Your task to perform on an android device: clear all cookies in the chrome app Image 0: 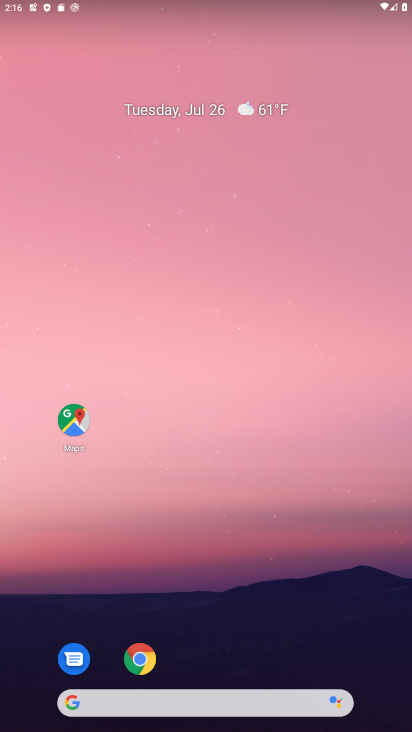
Step 0: click (140, 658)
Your task to perform on an android device: clear all cookies in the chrome app Image 1: 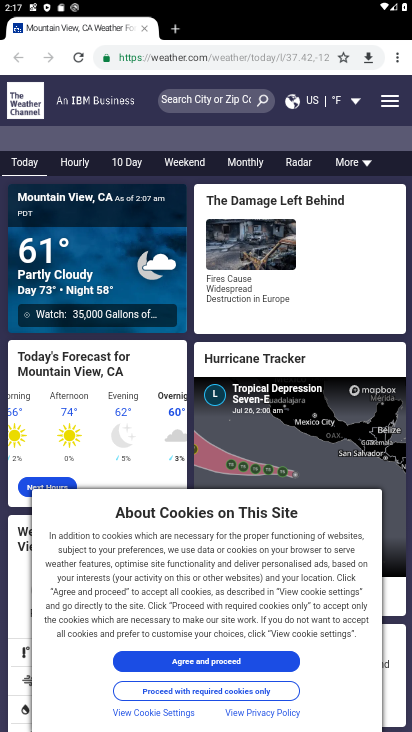
Step 1: click (394, 59)
Your task to perform on an android device: clear all cookies in the chrome app Image 2: 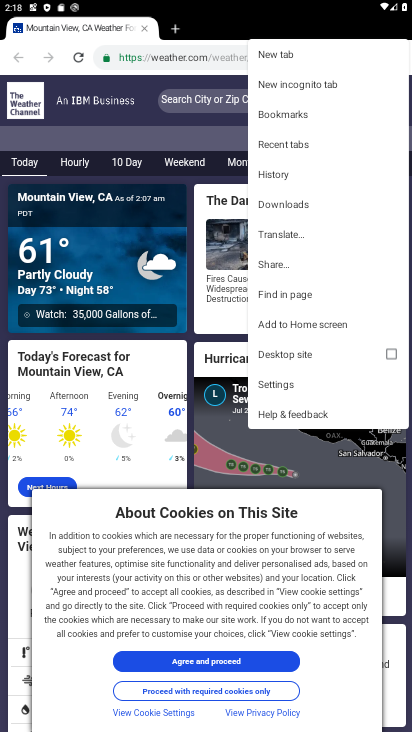
Step 2: click (287, 169)
Your task to perform on an android device: clear all cookies in the chrome app Image 3: 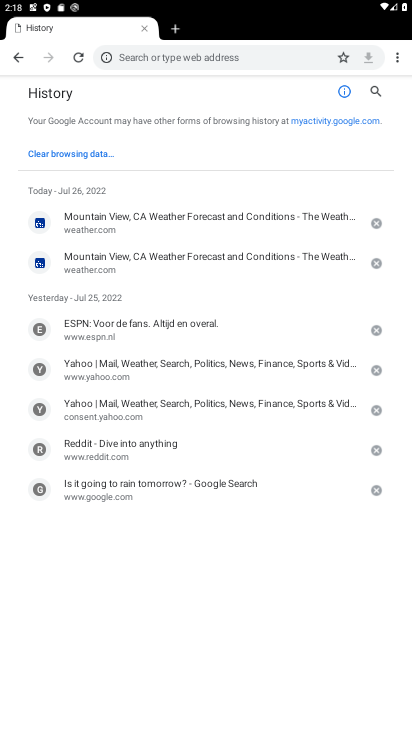
Step 3: click (82, 147)
Your task to perform on an android device: clear all cookies in the chrome app Image 4: 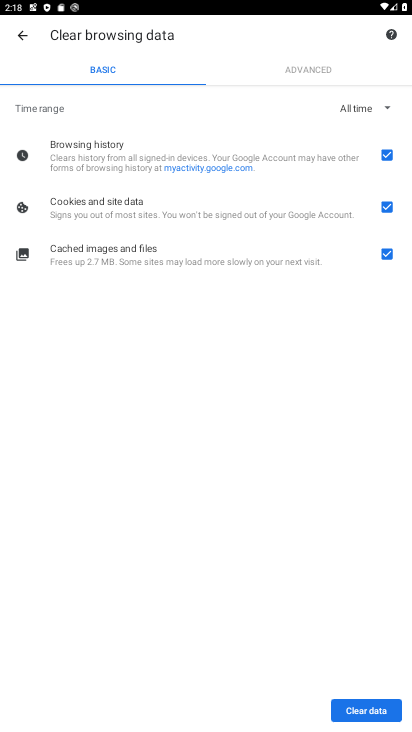
Step 4: click (387, 252)
Your task to perform on an android device: clear all cookies in the chrome app Image 5: 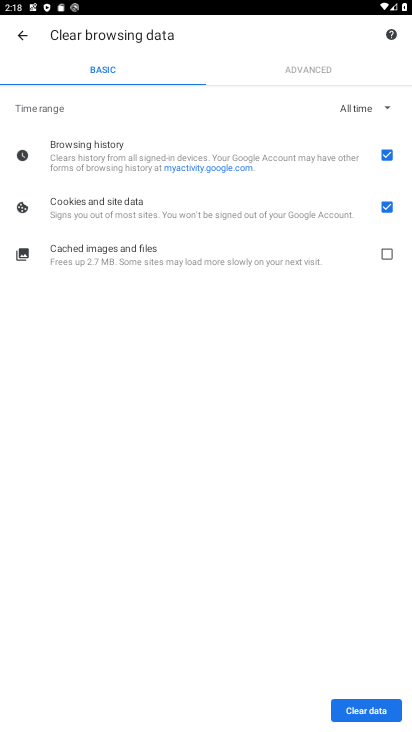
Step 5: click (393, 159)
Your task to perform on an android device: clear all cookies in the chrome app Image 6: 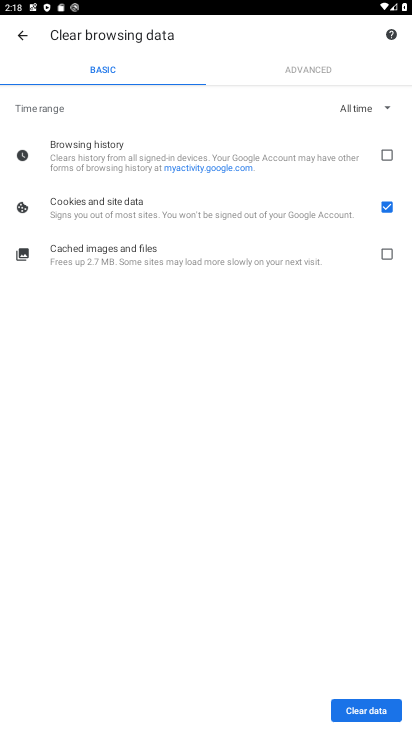
Step 6: click (356, 708)
Your task to perform on an android device: clear all cookies in the chrome app Image 7: 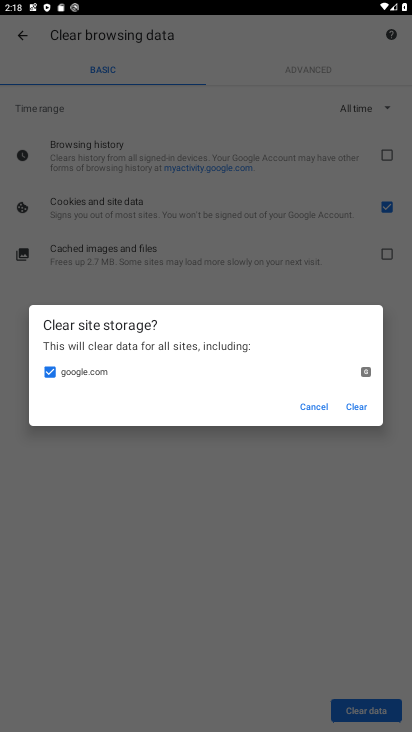
Step 7: click (355, 405)
Your task to perform on an android device: clear all cookies in the chrome app Image 8: 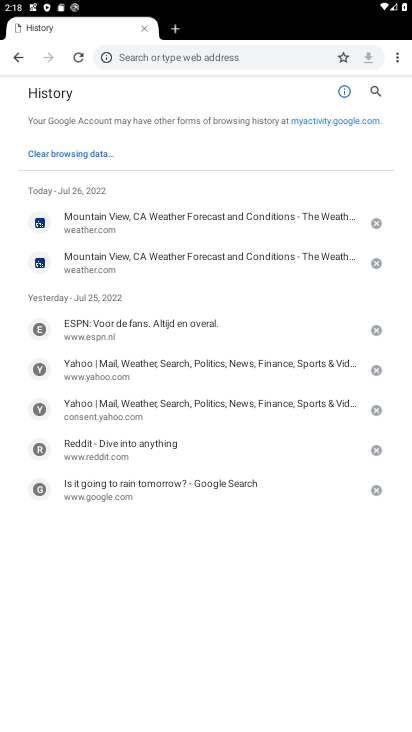
Step 8: task complete